Your task to perform on an android device: move a message to another label in the gmail app Image 0: 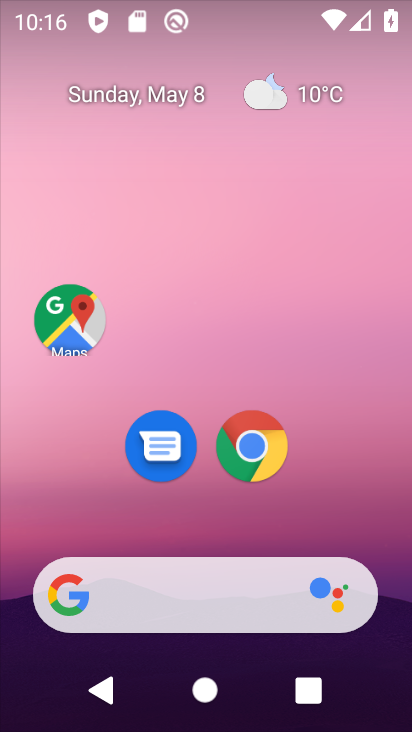
Step 0: drag from (373, 497) to (368, 5)
Your task to perform on an android device: move a message to another label in the gmail app Image 1: 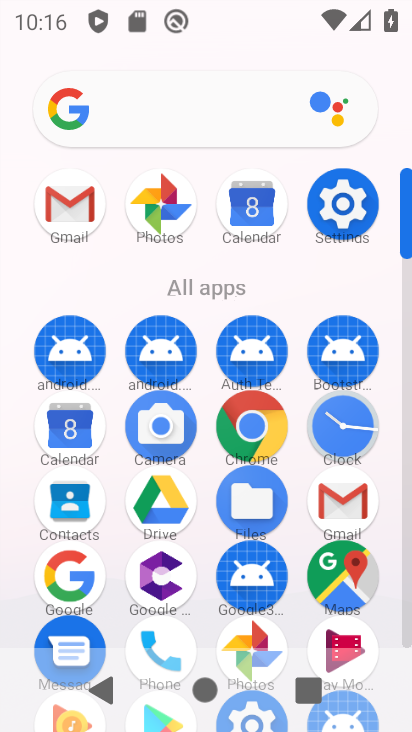
Step 1: click (72, 216)
Your task to perform on an android device: move a message to another label in the gmail app Image 2: 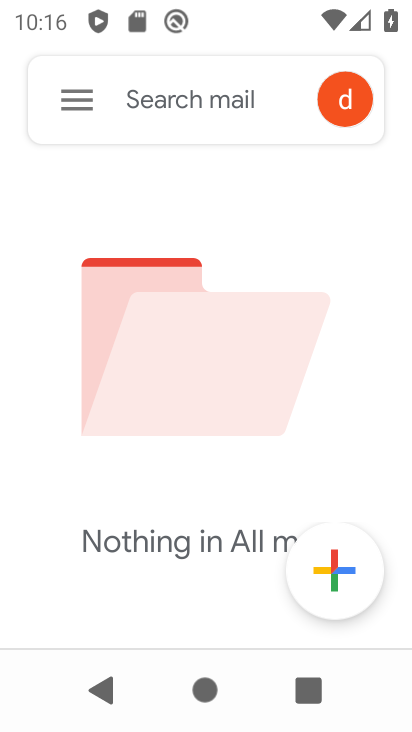
Step 2: task complete